Your task to perform on an android device: Turn on the flashlight Image 0: 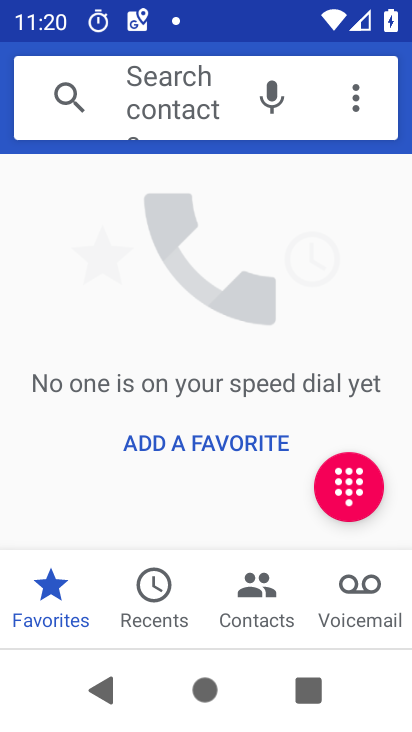
Step 0: press home button
Your task to perform on an android device: Turn on the flashlight Image 1: 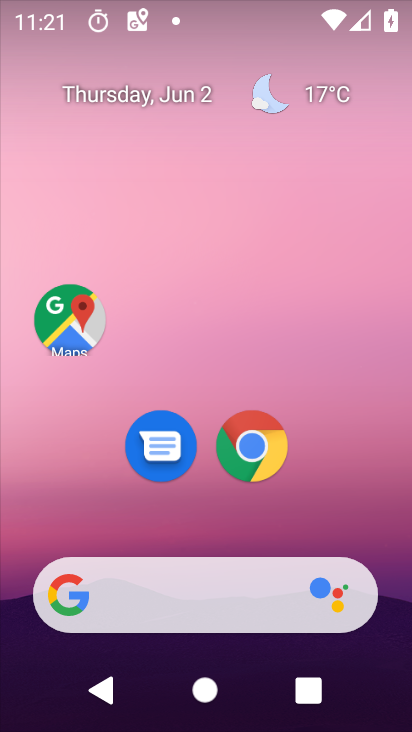
Step 1: drag from (247, 0) to (246, 307)
Your task to perform on an android device: Turn on the flashlight Image 2: 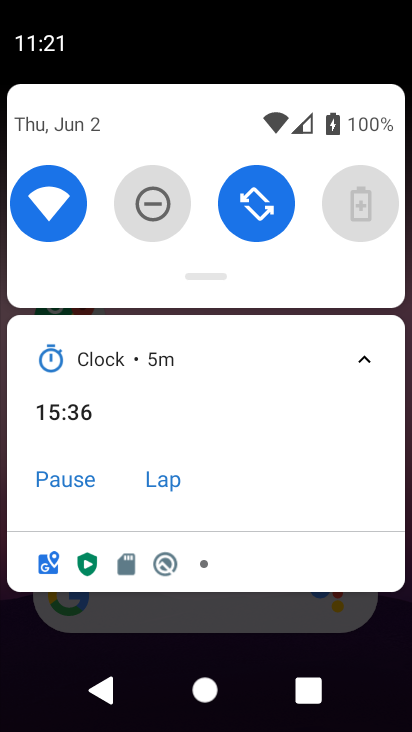
Step 2: drag from (205, 154) to (209, 350)
Your task to perform on an android device: Turn on the flashlight Image 3: 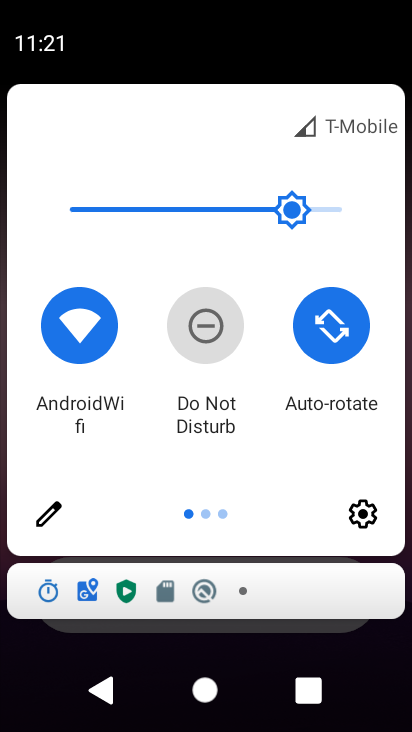
Step 3: click (53, 515)
Your task to perform on an android device: Turn on the flashlight Image 4: 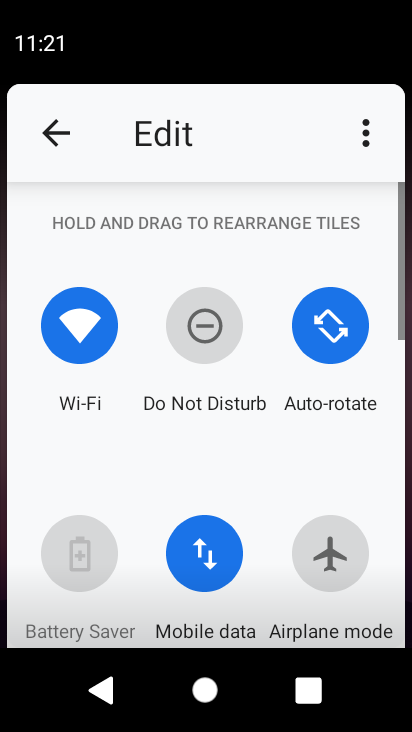
Step 4: task complete